Your task to perform on an android device: refresh tabs in the chrome app Image 0: 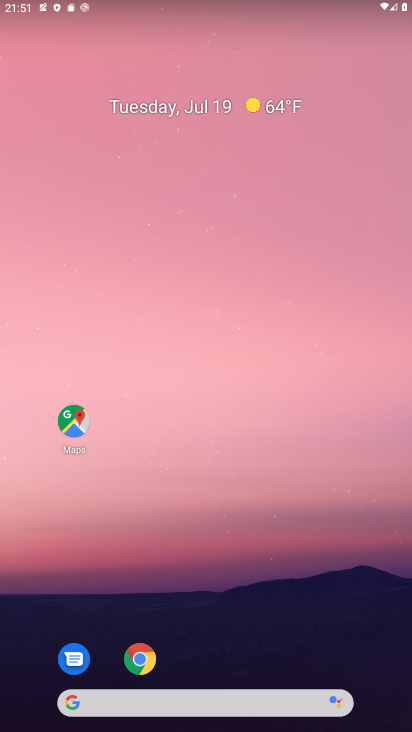
Step 0: click (141, 640)
Your task to perform on an android device: refresh tabs in the chrome app Image 1: 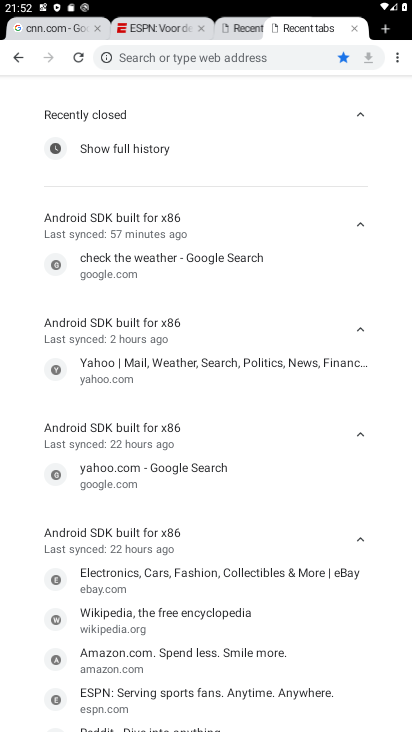
Step 1: click (79, 65)
Your task to perform on an android device: refresh tabs in the chrome app Image 2: 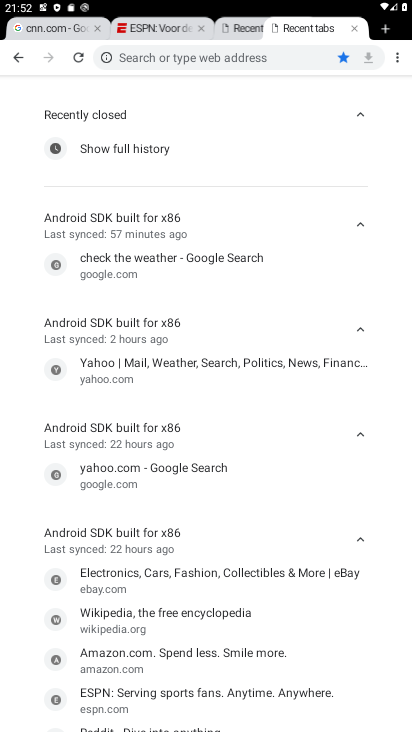
Step 2: task complete